Your task to perform on an android device: Go to eBay Image 0: 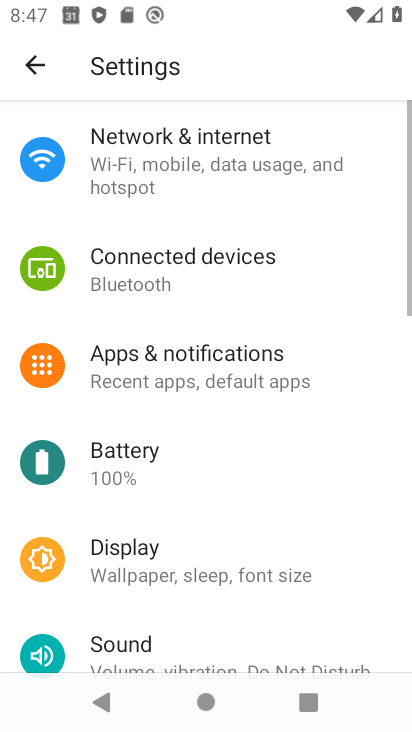
Step 0: press home button
Your task to perform on an android device: Go to eBay Image 1: 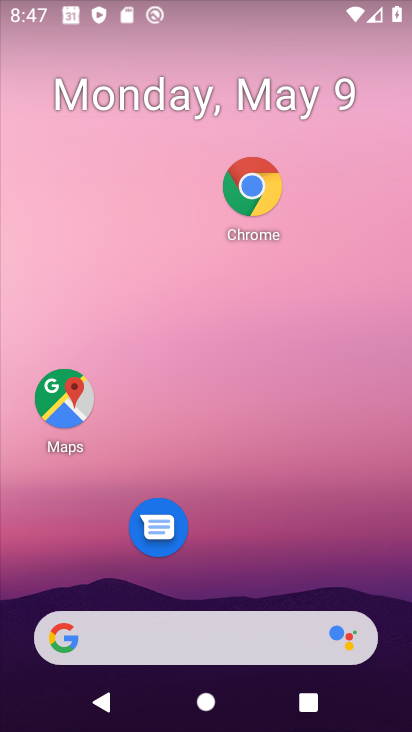
Step 1: click (249, 184)
Your task to perform on an android device: Go to eBay Image 2: 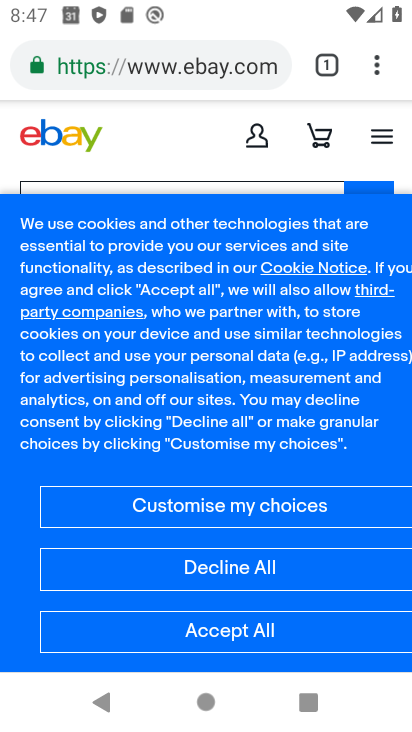
Step 2: click (229, 626)
Your task to perform on an android device: Go to eBay Image 3: 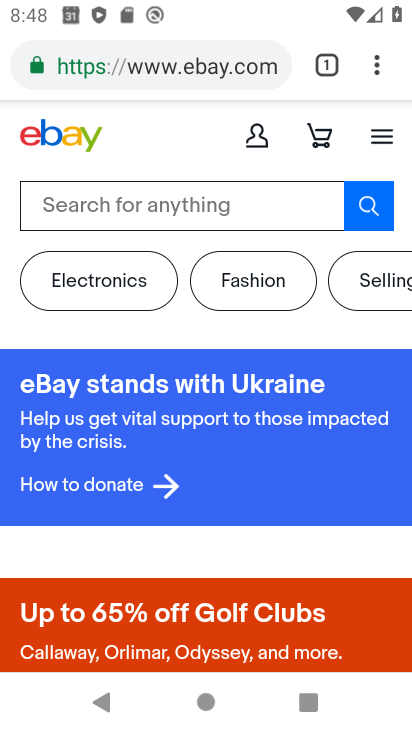
Step 3: task complete